Your task to perform on an android device: What is the recent news? Image 0: 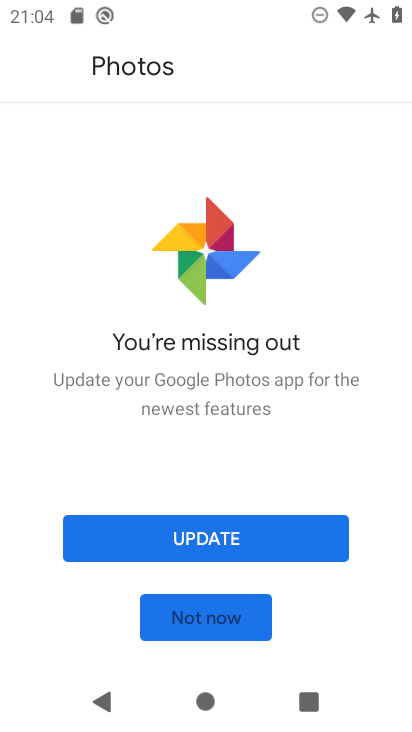
Step 0: press home button
Your task to perform on an android device: What is the recent news? Image 1: 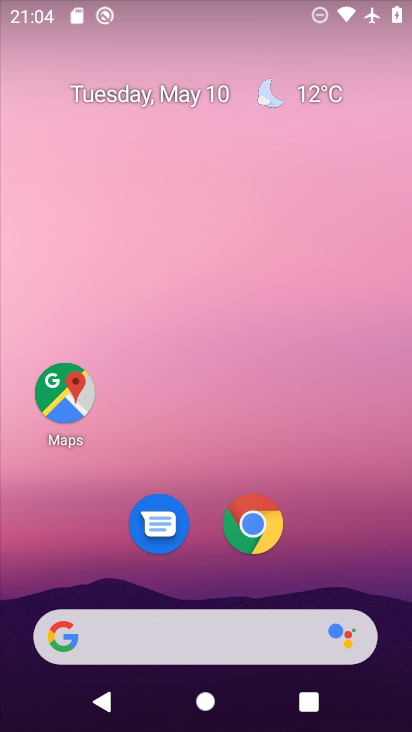
Step 1: click (231, 630)
Your task to perform on an android device: What is the recent news? Image 2: 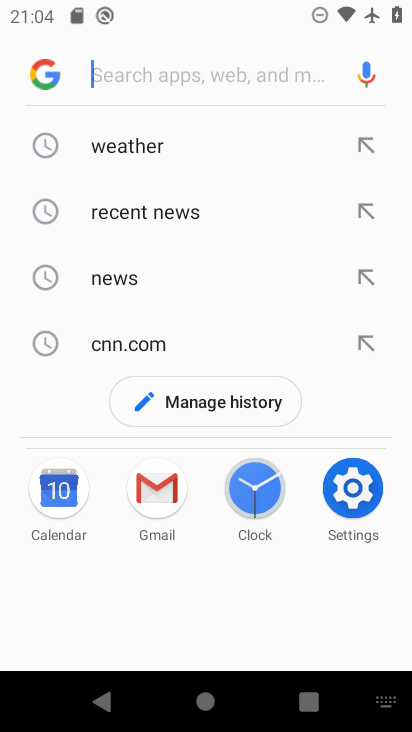
Step 2: click (91, 265)
Your task to perform on an android device: What is the recent news? Image 3: 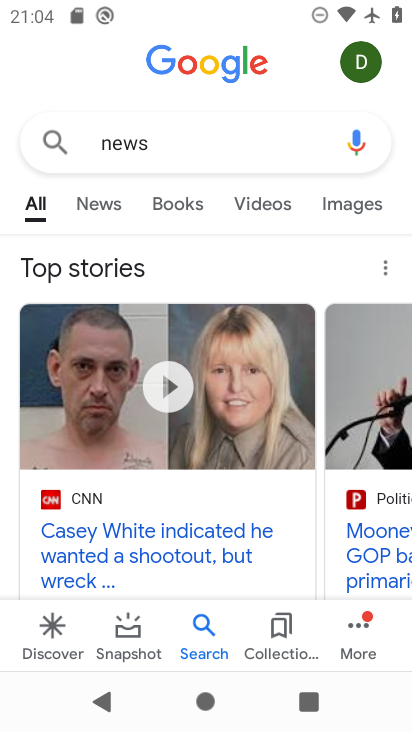
Step 3: click (101, 190)
Your task to perform on an android device: What is the recent news? Image 4: 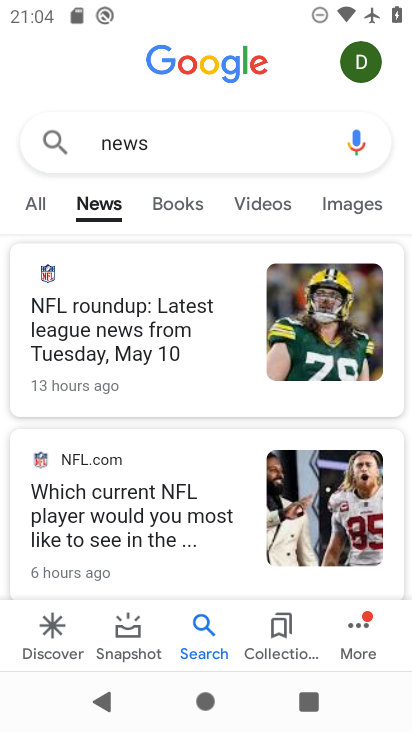
Step 4: task complete